Your task to perform on an android device: read, delete, or share a saved page in the chrome app Image 0: 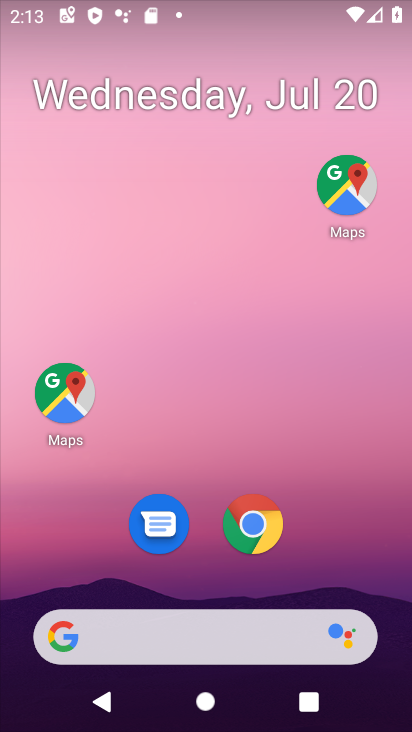
Step 0: click (252, 518)
Your task to perform on an android device: read, delete, or share a saved page in the chrome app Image 1: 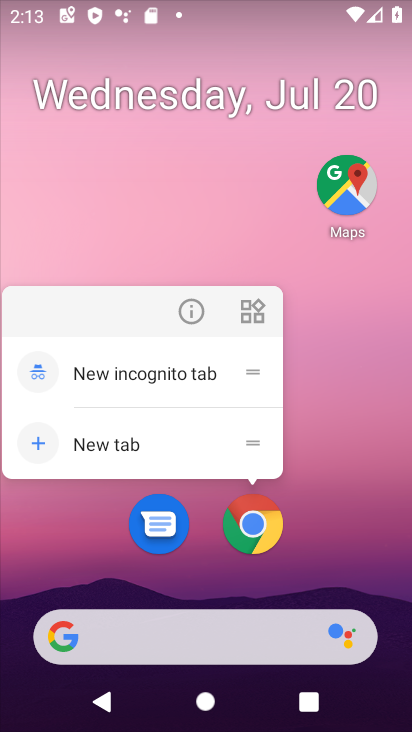
Step 1: click (252, 518)
Your task to perform on an android device: read, delete, or share a saved page in the chrome app Image 2: 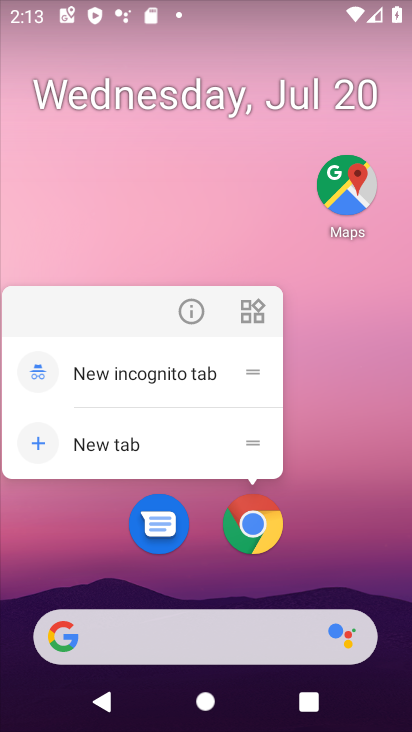
Step 2: click (252, 518)
Your task to perform on an android device: read, delete, or share a saved page in the chrome app Image 3: 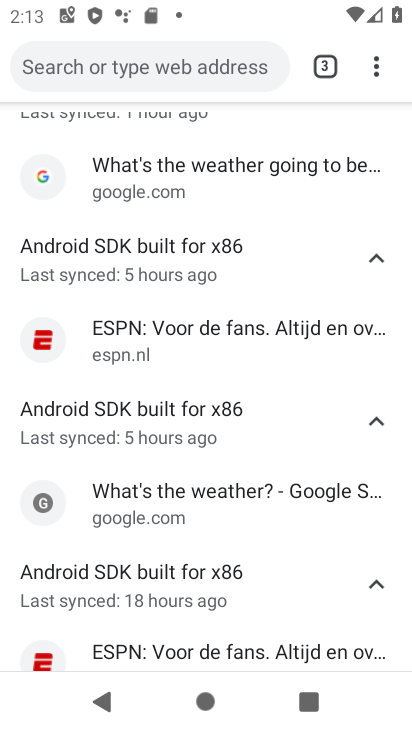
Step 3: click (374, 61)
Your task to perform on an android device: read, delete, or share a saved page in the chrome app Image 4: 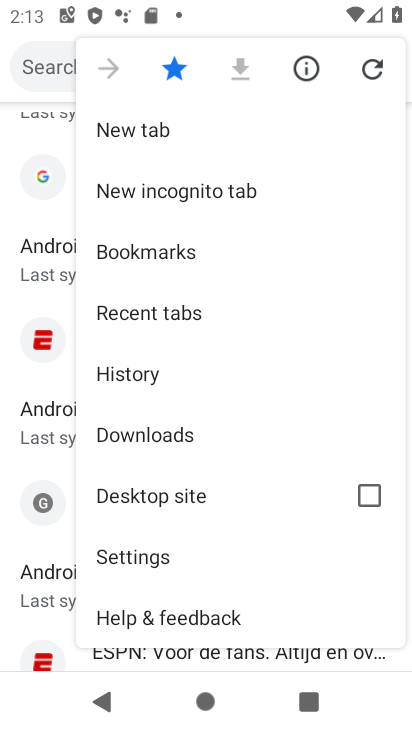
Step 4: click (187, 435)
Your task to perform on an android device: read, delete, or share a saved page in the chrome app Image 5: 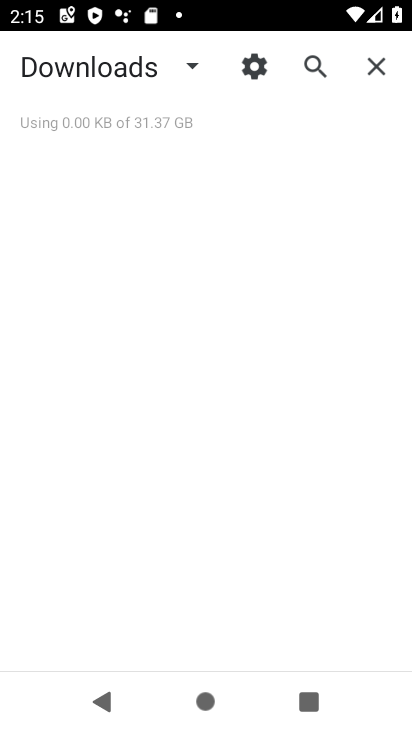
Step 5: task complete